Your task to perform on an android device: Open Wikipedia Image 0: 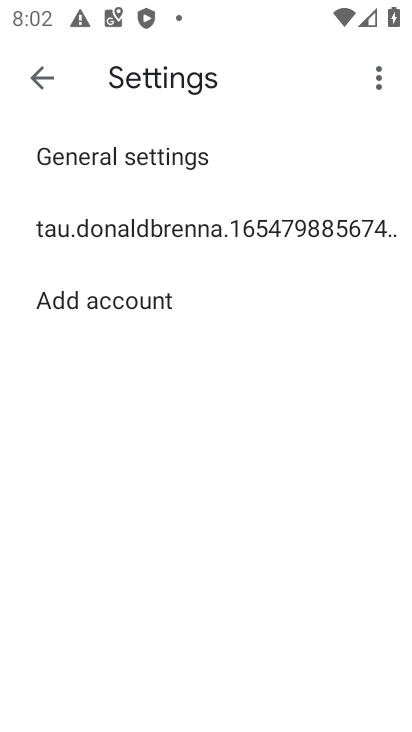
Step 0: press home button
Your task to perform on an android device: Open Wikipedia Image 1: 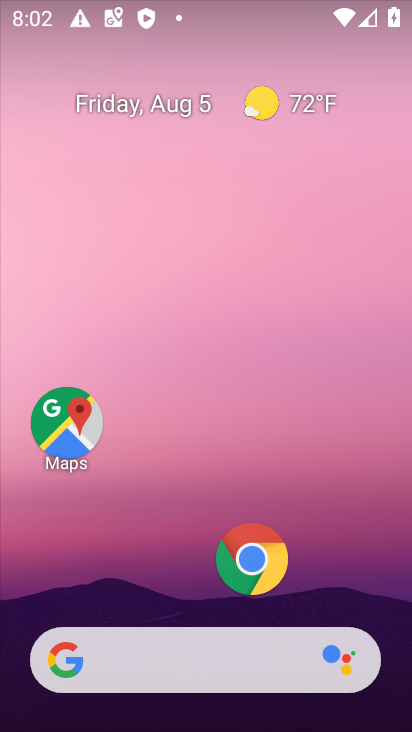
Step 1: click (253, 560)
Your task to perform on an android device: Open Wikipedia Image 2: 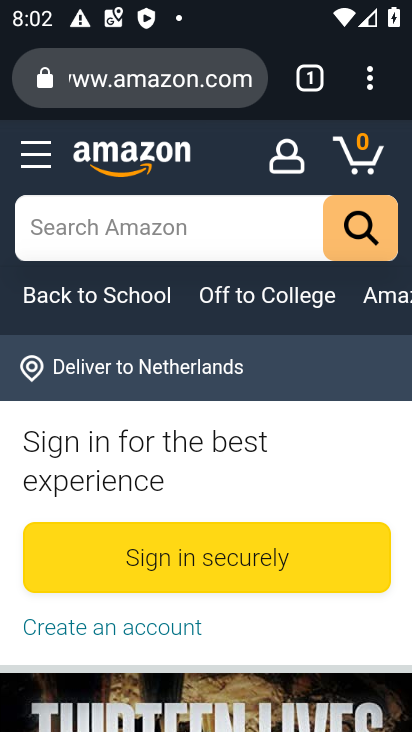
Step 2: click (162, 81)
Your task to perform on an android device: Open Wikipedia Image 3: 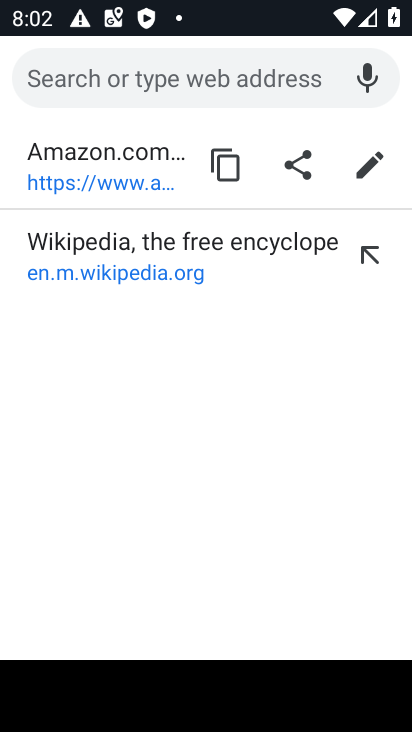
Step 3: type "wikipedia"
Your task to perform on an android device: Open Wikipedia Image 4: 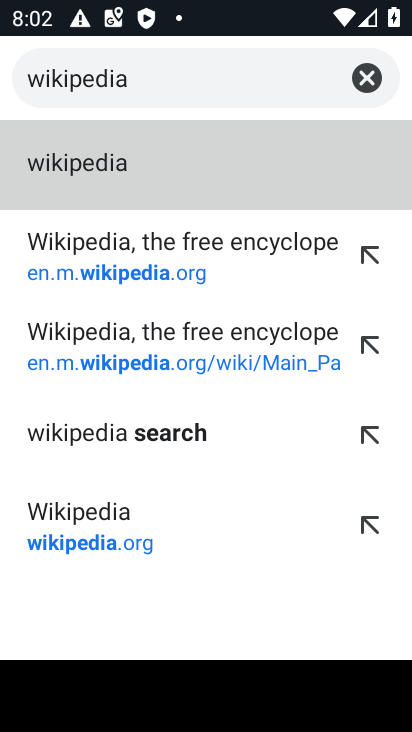
Step 4: click (108, 179)
Your task to perform on an android device: Open Wikipedia Image 5: 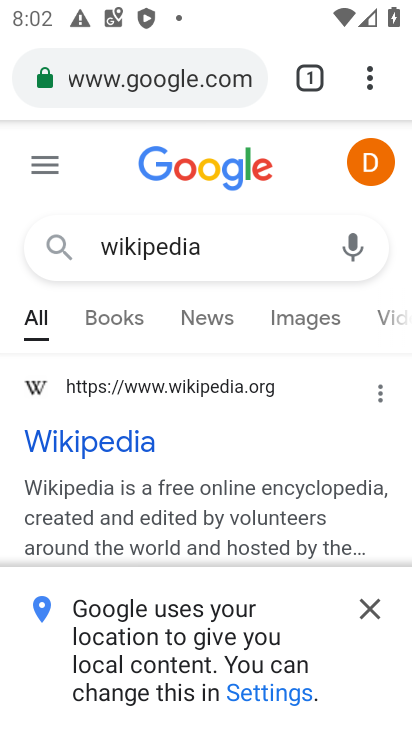
Step 5: click (367, 608)
Your task to perform on an android device: Open Wikipedia Image 6: 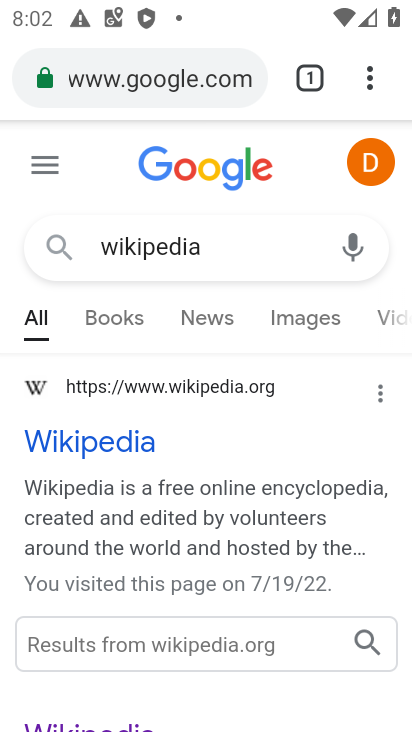
Step 6: task complete